Your task to perform on an android device: Go to notification settings Image 0: 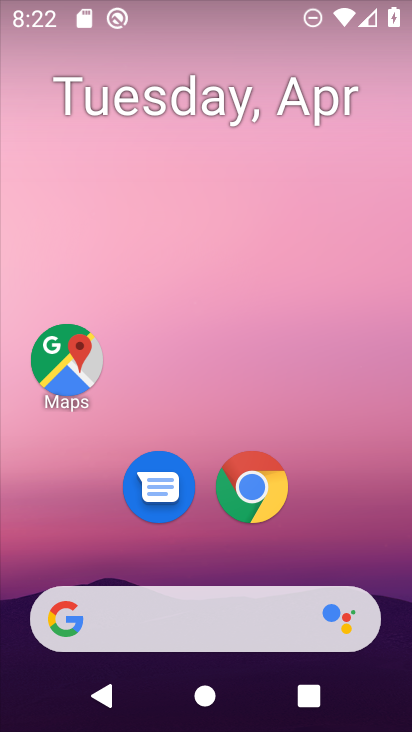
Step 0: drag from (159, 538) to (185, 289)
Your task to perform on an android device: Go to notification settings Image 1: 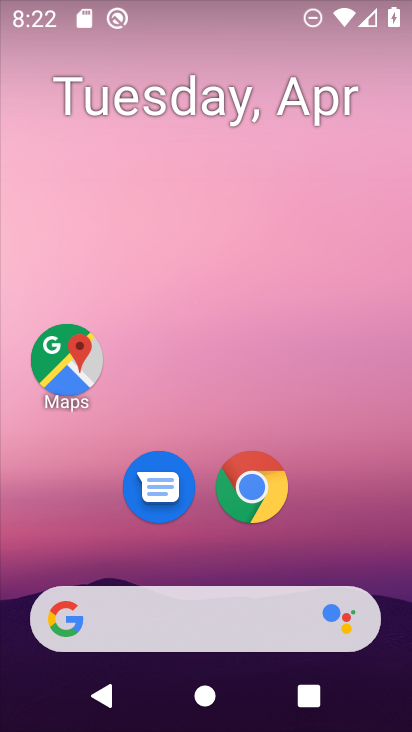
Step 1: drag from (219, 580) to (233, 179)
Your task to perform on an android device: Go to notification settings Image 2: 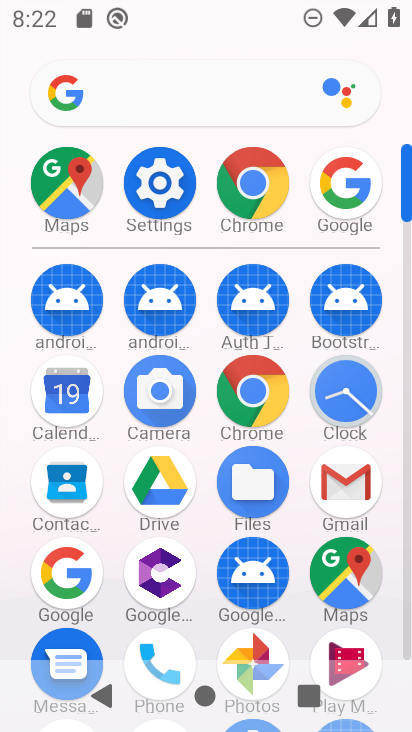
Step 2: click (157, 185)
Your task to perform on an android device: Go to notification settings Image 3: 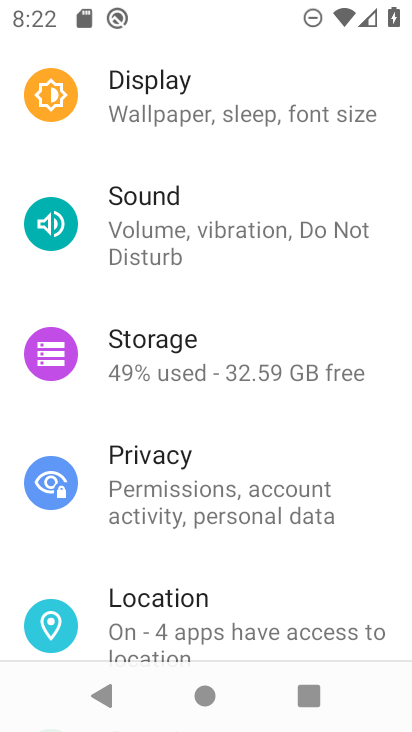
Step 3: drag from (216, 125) to (204, 494)
Your task to perform on an android device: Go to notification settings Image 4: 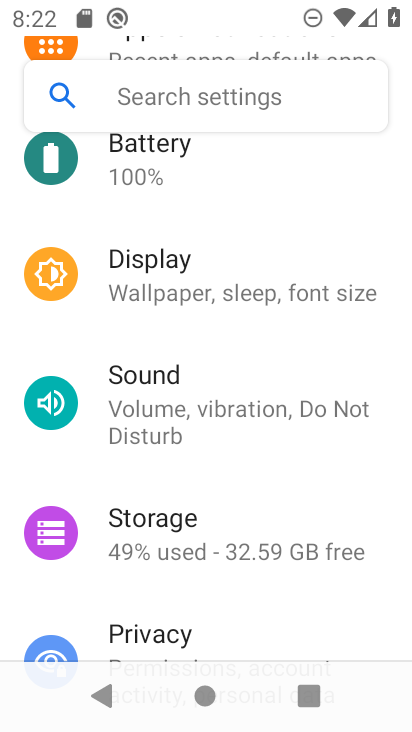
Step 4: drag from (264, 157) to (236, 547)
Your task to perform on an android device: Go to notification settings Image 5: 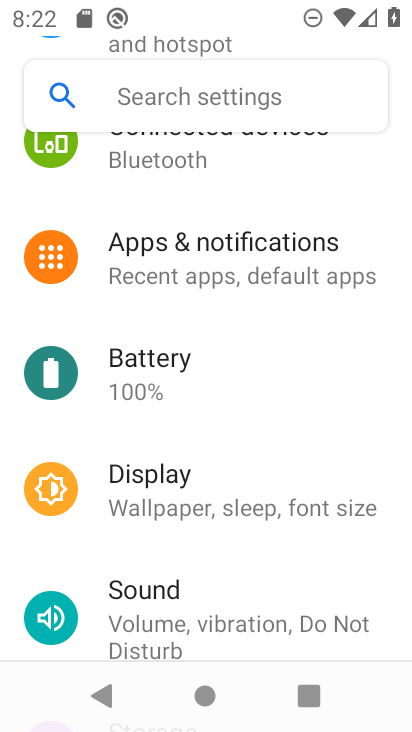
Step 5: click (245, 252)
Your task to perform on an android device: Go to notification settings Image 6: 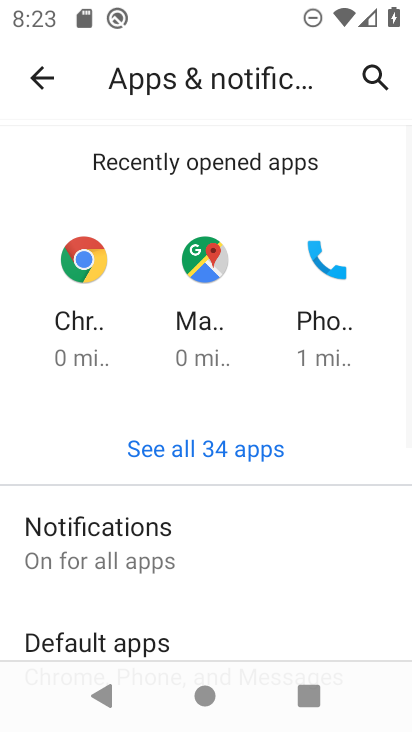
Step 6: drag from (238, 624) to (239, 351)
Your task to perform on an android device: Go to notification settings Image 7: 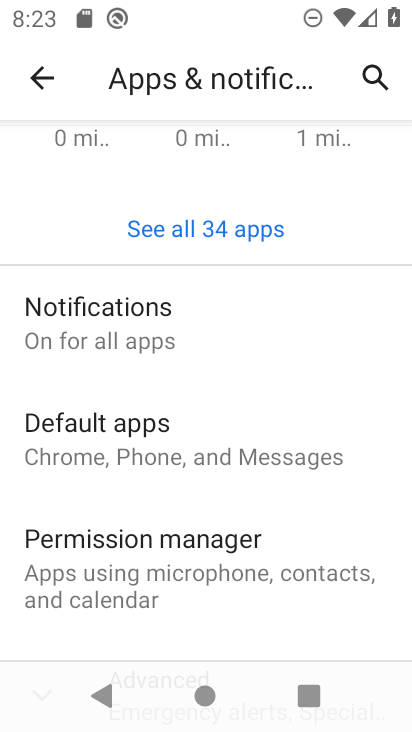
Step 7: drag from (255, 600) to (267, 312)
Your task to perform on an android device: Go to notification settings Image 8: 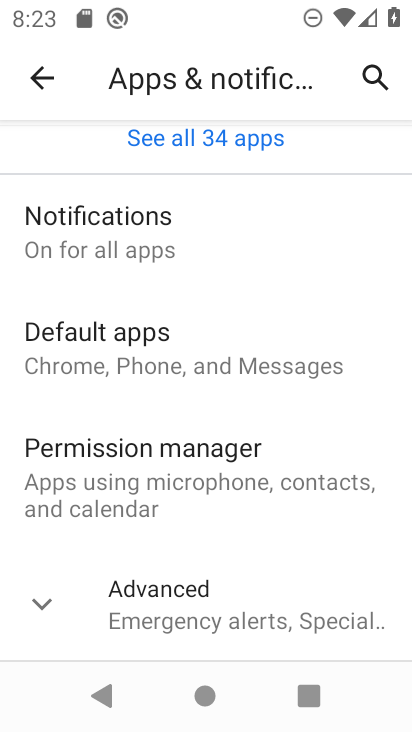
Step 8: click (190, 613)
Your task to perform on an android device: Go to notification settings Image 9: 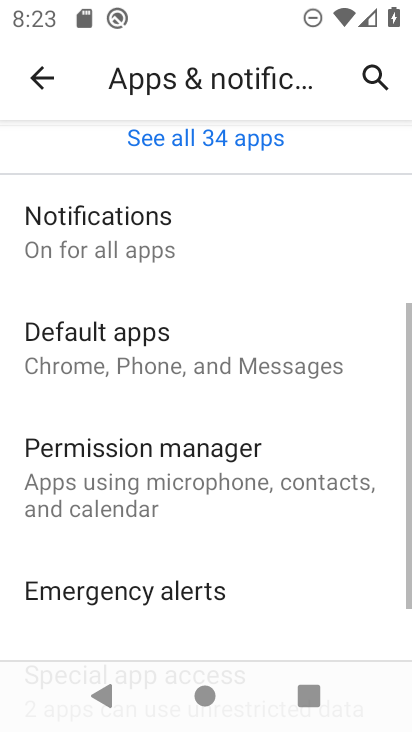
Step 9: task complete